Your task to perform on an android device: What's the weather? Image 0: 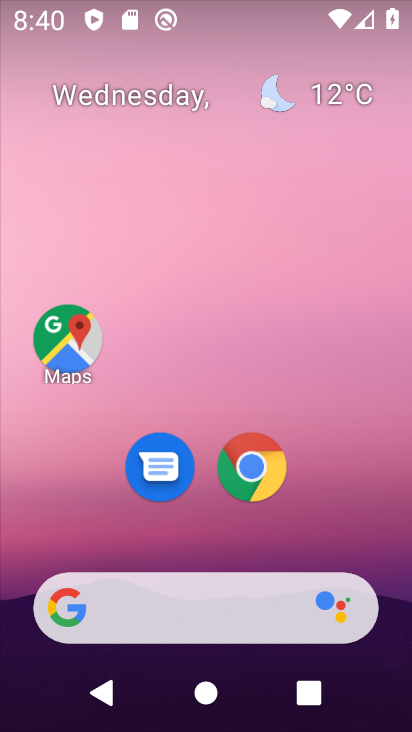
Step 0: click (307, 75)
Your task to perform on an android device: What's the weather? Image 1: 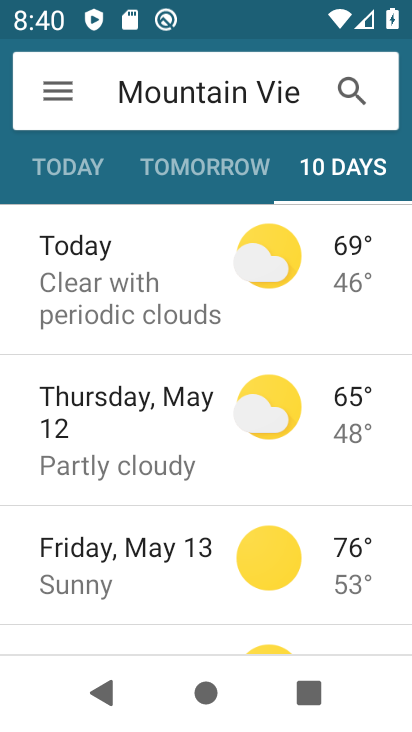
Step 1: click (72, 163)
Your task to perform on an android device: What's the weather? Image 2: 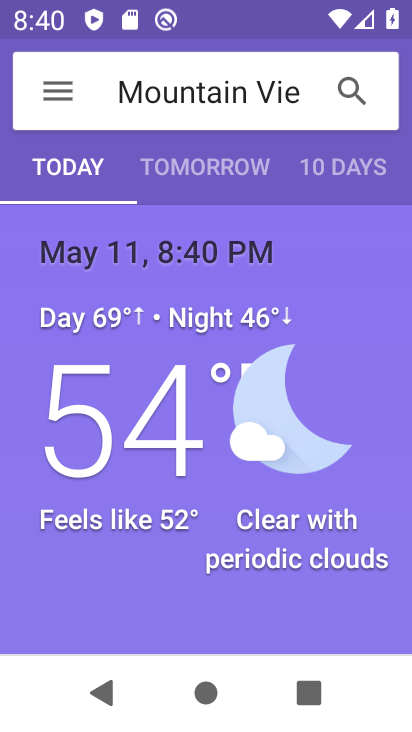
Step 2: task complete